Your task to perform on an android device: Go to wifi settings Image 0: 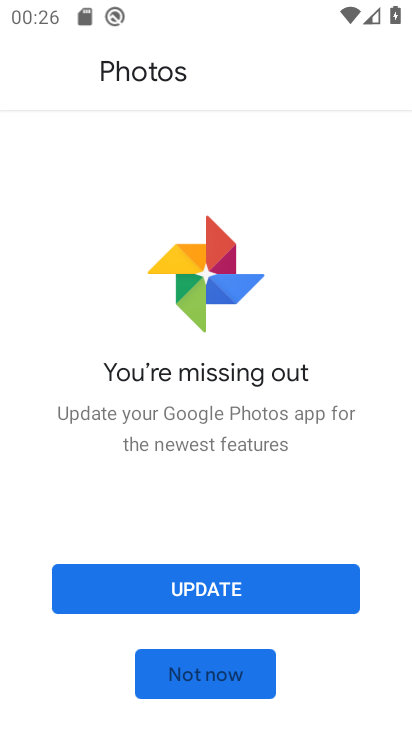
Step 0: click (222, 671)
Your task to perform on an android device: Go to wifi settings Image 1: 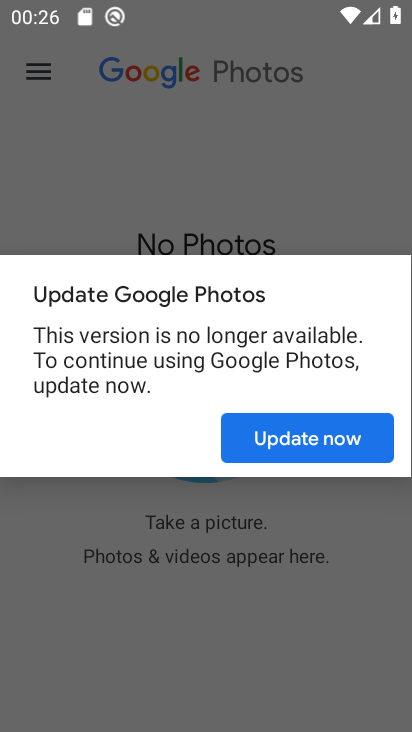
Step 1: click (315, 429)
Your task to perform on an android device: Go to wifi settings Image 2: 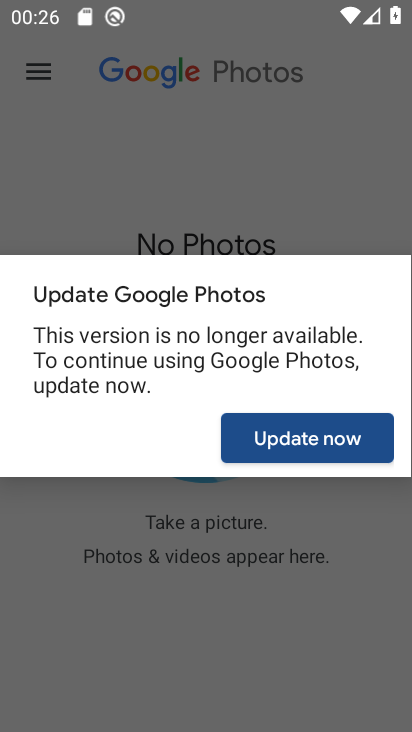
Step 2: click (324, 435)
Your task to perform on an android device: Go to wifi settings Image 3: 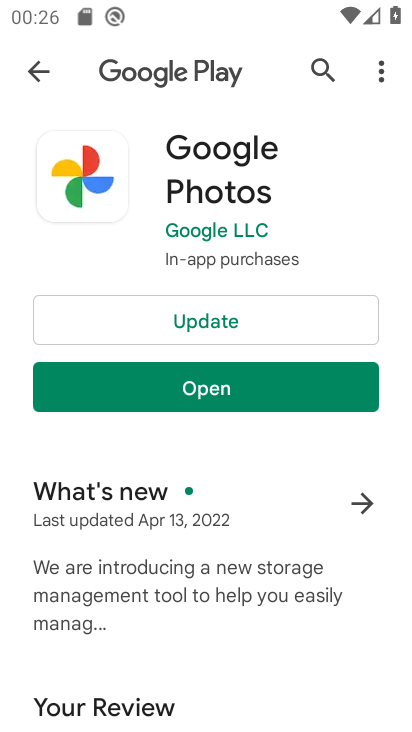
Step 3: click (36, 63)
Your task to perform on an android device: Go to wifi settings Image 4: 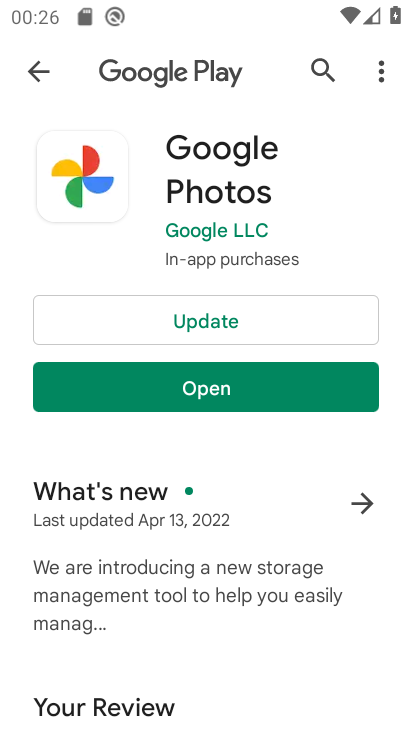
Step 4: click (41, 75)
Your task to perform on an android device: Go to wifi settings Image 5: 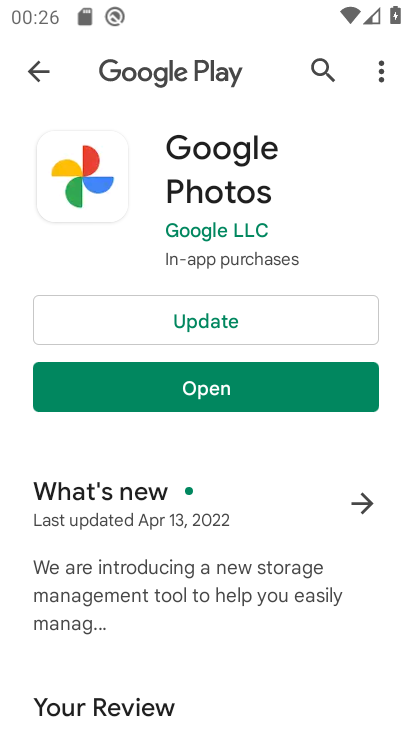
Step 5: click (29, 55)
Your task to perform on an android device: Go to wifi settings Image 6: 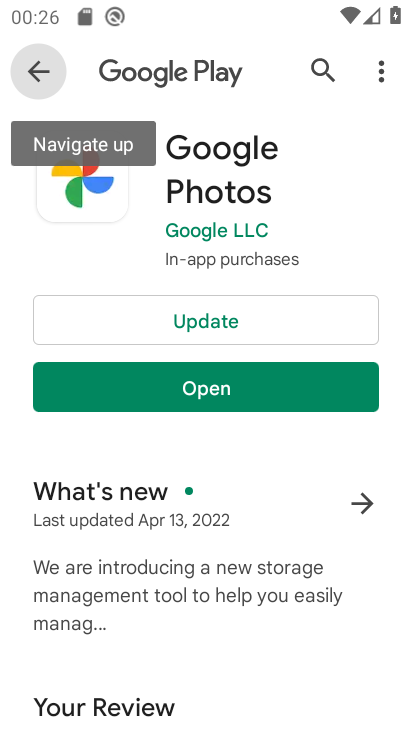
Step 6: drag from (28, 84) to (55, 165)
Your task to perform on an android device: Go to wifi settings Image 7: 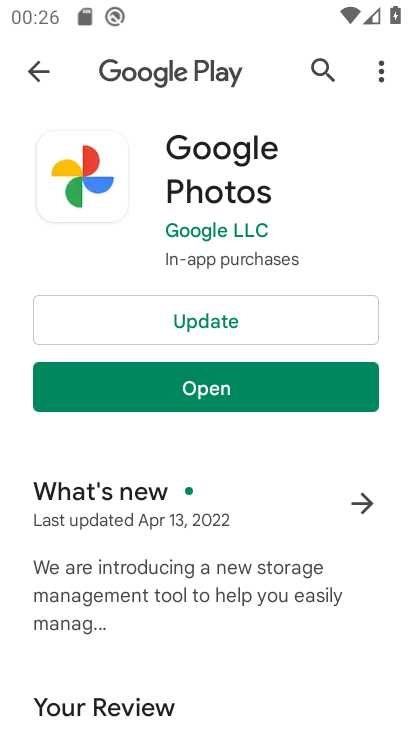
Step 7: click (55, 165)
Your task to perform on an android device: Go to wifi settings Image 8: 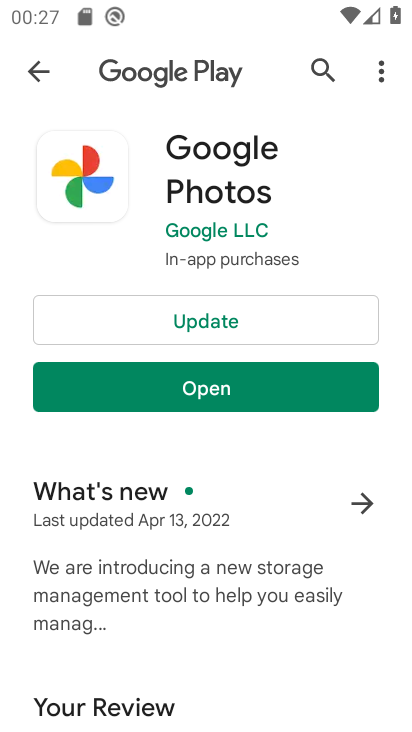
Step 8: click (42, 77)
Your task to perform on an android device: Go to wifi settings Image 9: 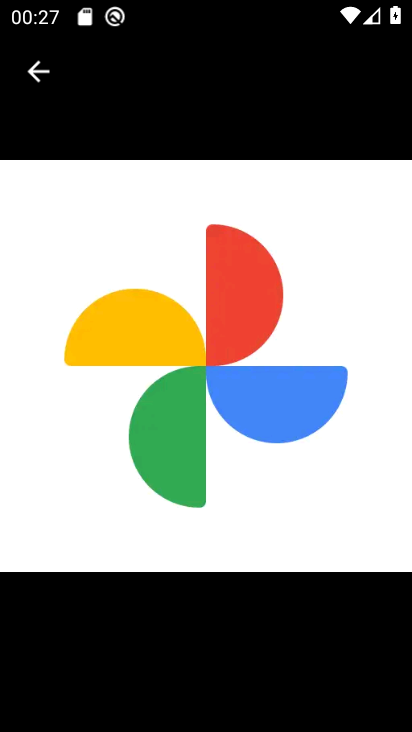
Step 9: press home button
Your task to perform on an android device: Go to wifi settings Image 10: 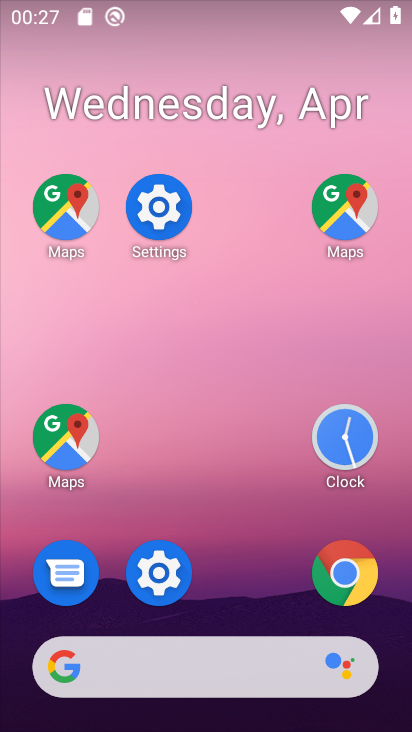
Step 10: click (159, 215)
Your task to perform on an android device: Go to wifi settings Image 11: 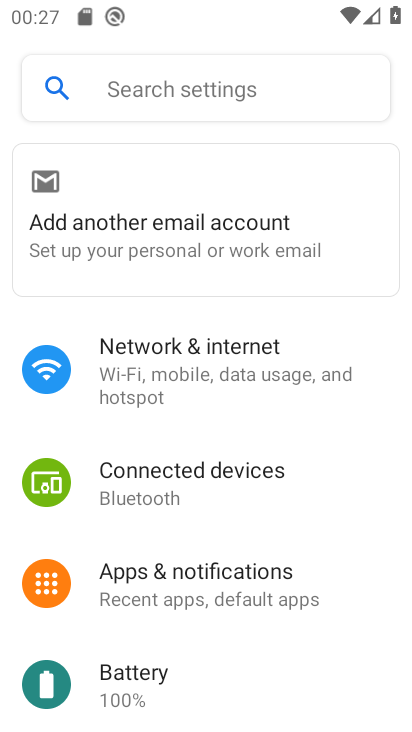
Step 11: click (181, 371)
Your task to perform on an android device: Go to wifi settings Image 12: 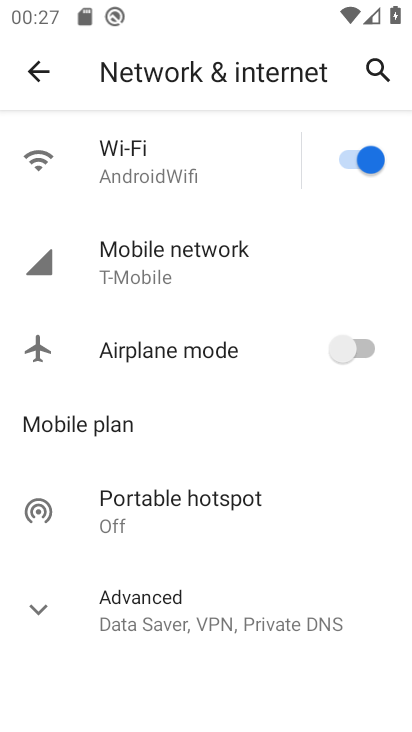
Step 12: task complete